Your task to perform on an android device: Open Google Chrome and click the shortcut for Amazon.com Image 0: 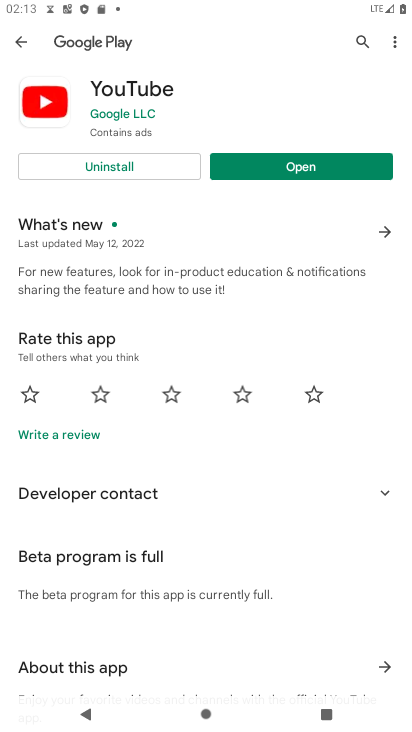
Step 0: press home button
Your task to perform on an android device: Open Google Chrome and click the shortcut for Amazon.com Image 1: 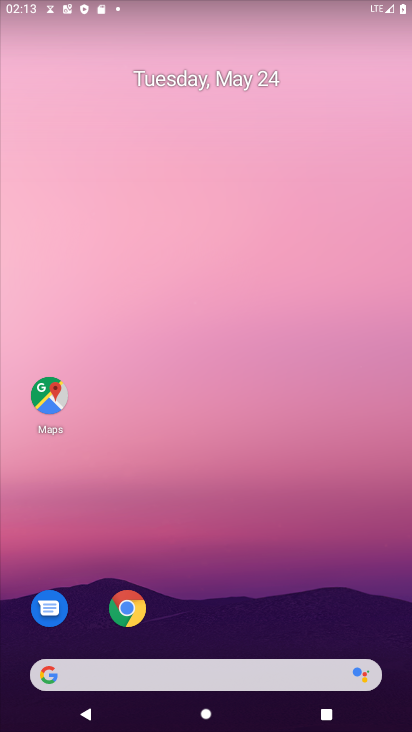
Step 1: click (370, 509)
Your task to perform on an android device: Open Google Chrome and click the shortcut for Amazon.com Image 2: 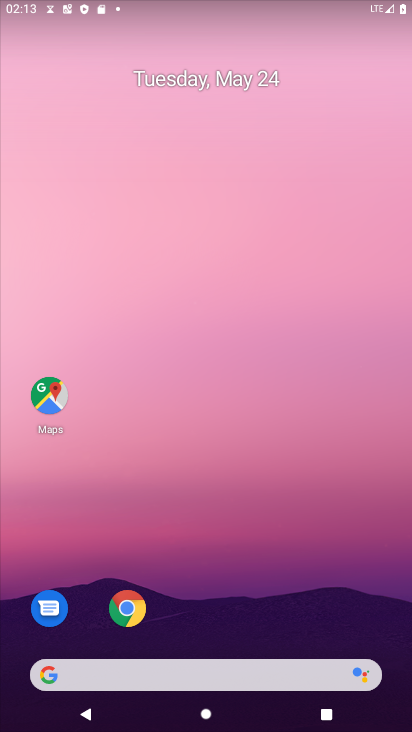
Step 2: click (138, 606)
Your task to perform on an android device: Open Google Chrome and click the shortcut for Amazon.com Image 3: 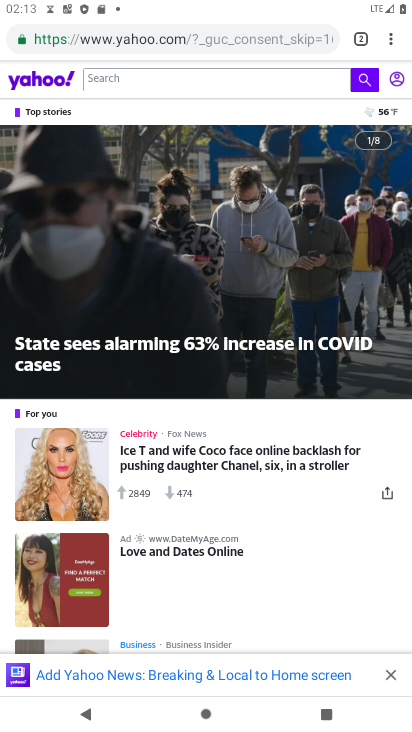
Step 3: click (361, 50)
Your task to perform on an android device: Open Google Chrome and click the shortcut for Amazon.com Image 4: 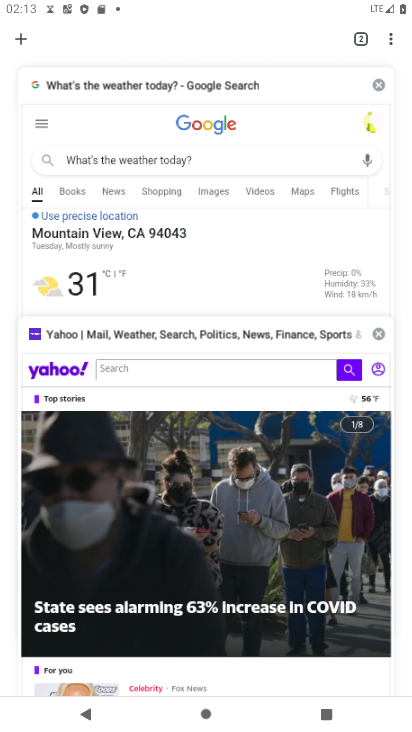
Step 4: click (27, 39)
Your task to perform on an android device: Open Google Chrome and click the shortcut for Amazon.com Image 5: 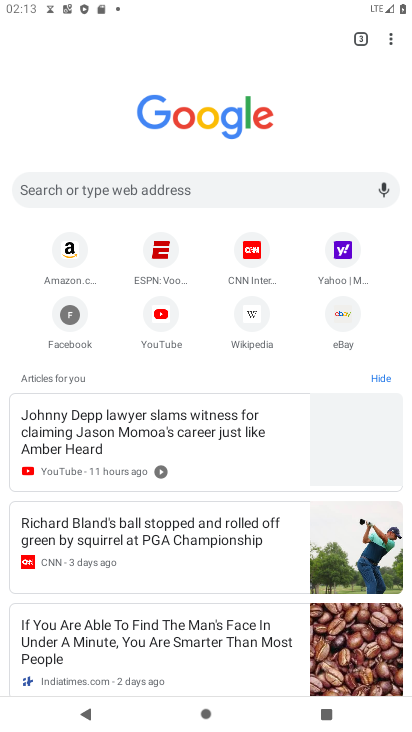
Step 5: click (80, 254)
Your task to perform on an android device: Open Google Chrome and click the shortcut for Amazon.com Image 6: 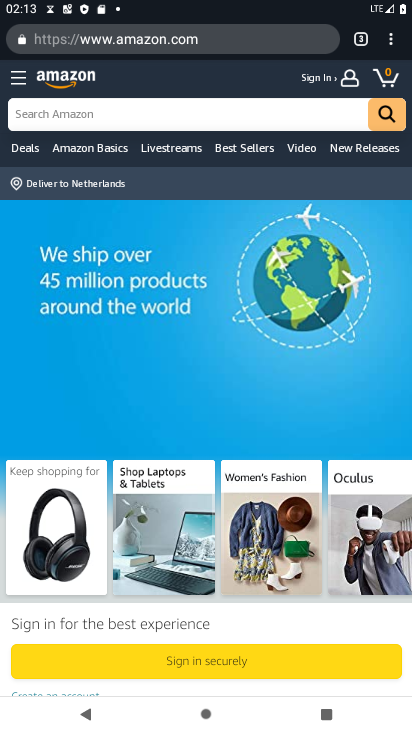
Step 6: task complete